Your task to perform on an android device: turn off airplane mode Image 0: 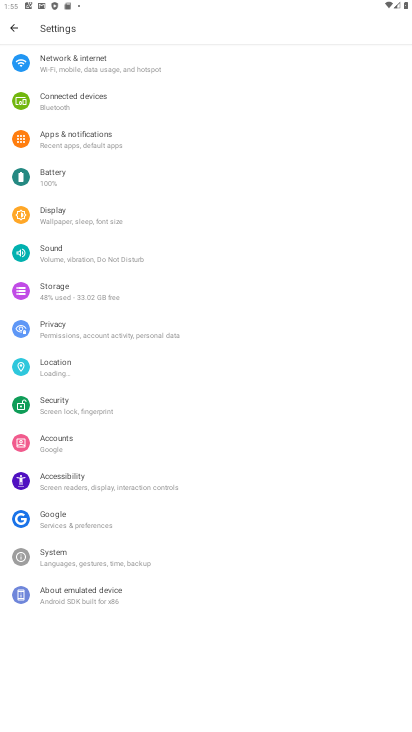
Step 0: press home button
Your task to perform on an android device: turn off airplane mode Image 1: 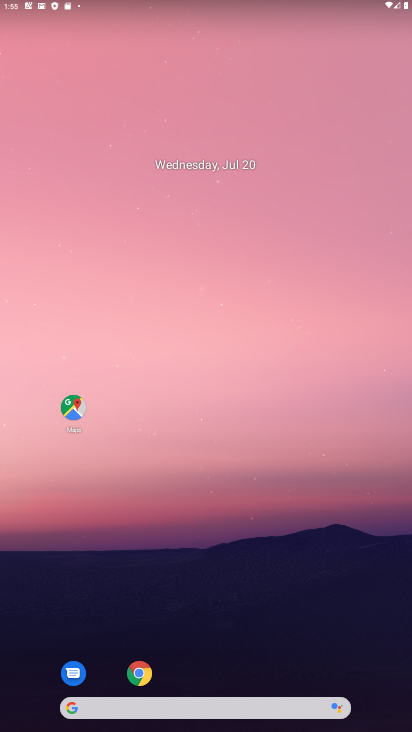
Step 1: drag from (214, 666) to (281, 18)
Your task to perform on an android device: turn off airplane mode Image 2: 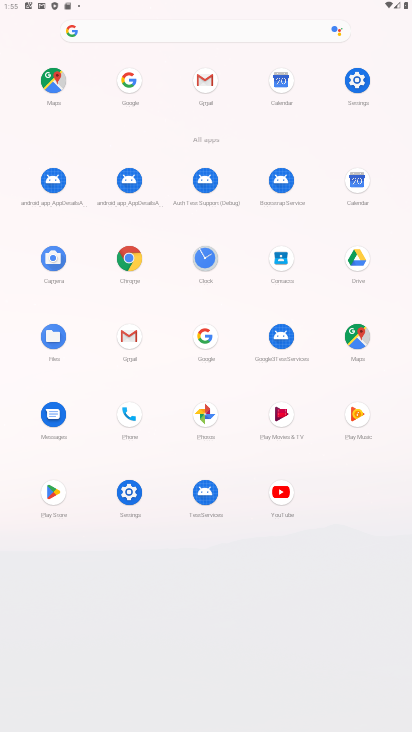
Step 2: click (354, 80)
Your task to perform on an android device: turn off airplane mode Image 3: 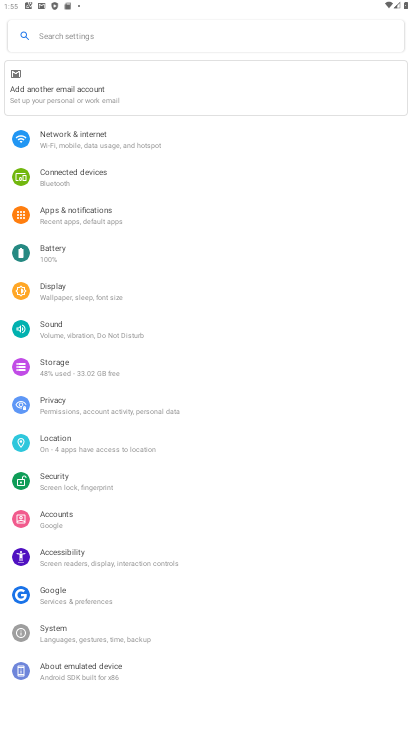
Step 3: click (87, 141)
Your task to perform on an android device: turn off airplane mode Image 4: 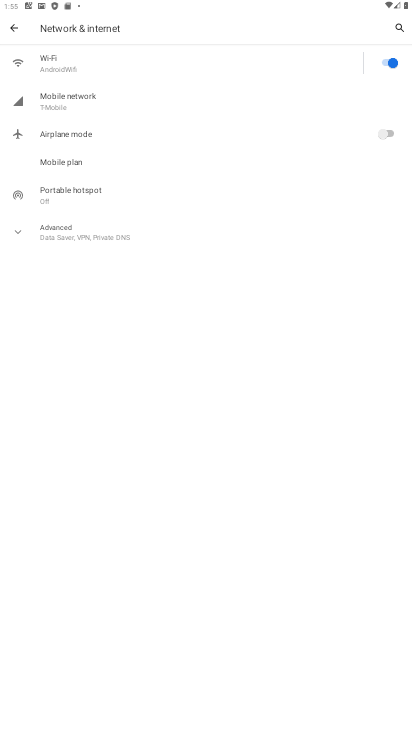
Step 4: task complete